Your task to perform on an android device: Search for sushi restaurants on Maps Image 0: 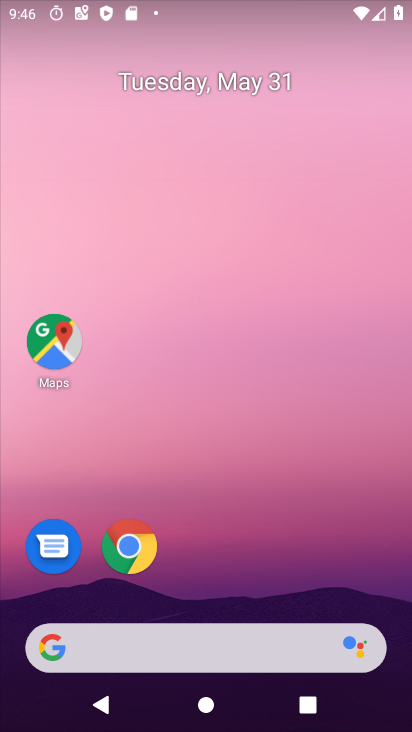
Step 0: click (51, 330)
Your task to perform on an android device: Search for sushi restaurants on Maps Image 1: 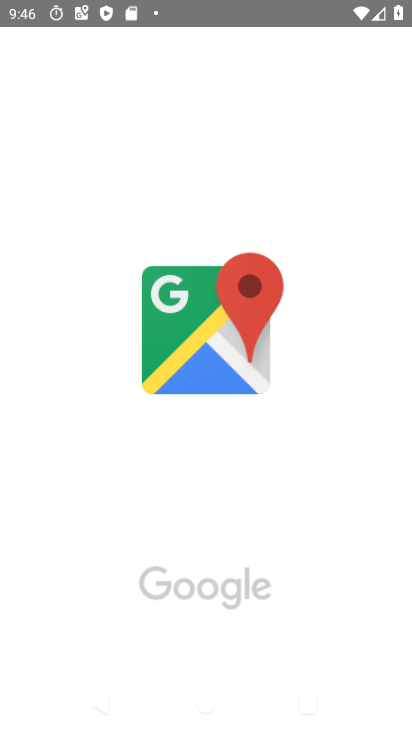
Step 1: click (317, 334)
Your task to perform on an android device: Search for sushi restaurants on Maps Image 2: 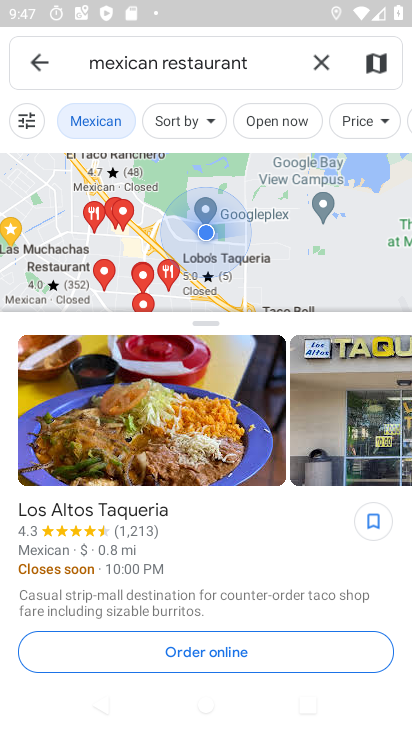
Step 2: click (322, 66)
Your task to perform on an android device: Search for sushi restaurants on Maps Image 3: 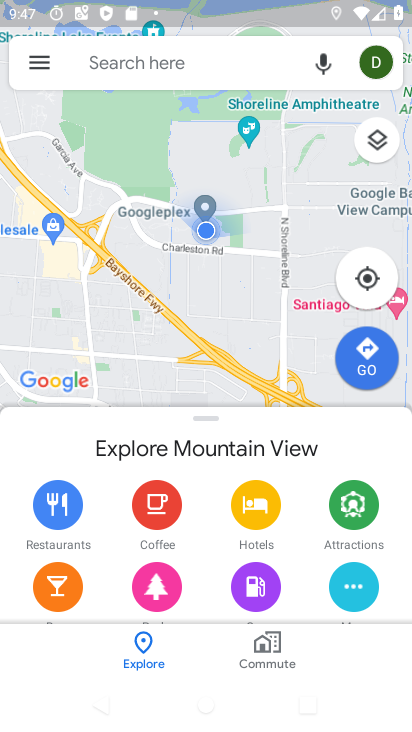
Step 3: click (105, 55)
Your task to perform on an android device: Search for sushi restaurants on Maps Image 4: 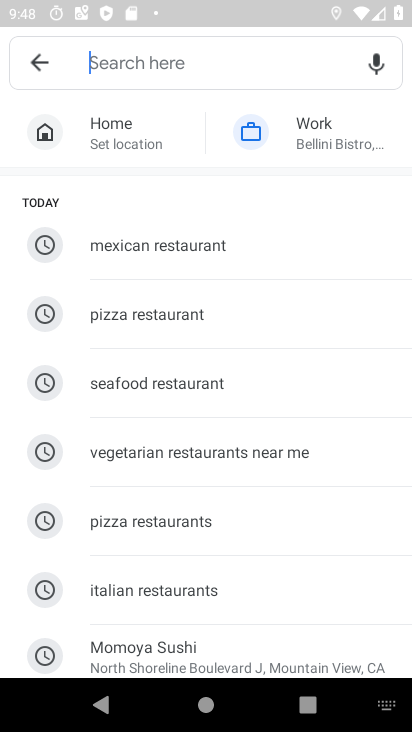
Step 4: type "sushi restaurants"
Your task to perform on an android device: Search for sushi restaurants on Maps Image 5: 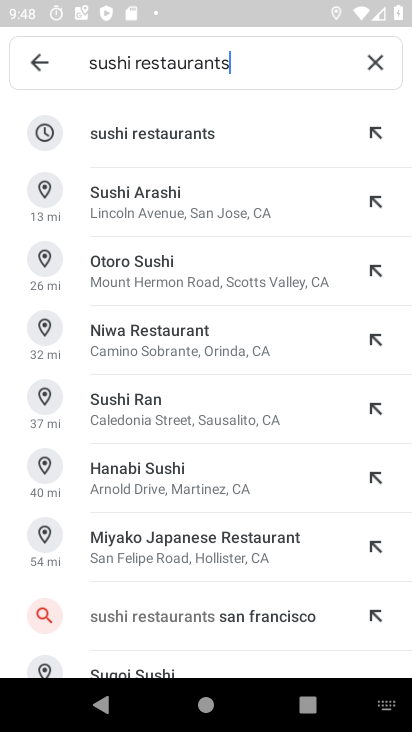
Step 5: click (245, 132)
Your task to perform on an android device: Search for sushi restaurants on Maps Image 6: 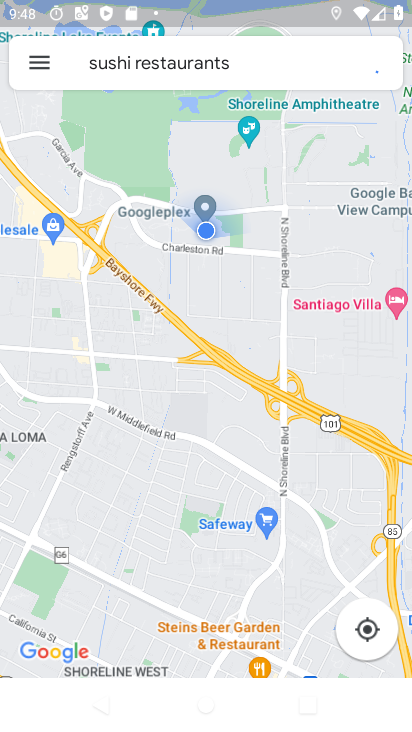
Step 6: click (206, 133)
Your task to perform on an android device: Search for sushi restaurants on Maps Image 7: 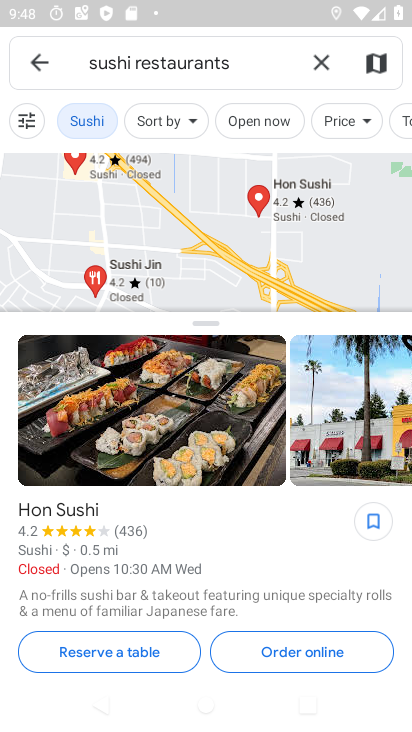
Step 7: task complete